Your task to perform on an android device: make emails show in primary in the gmail app Image 0: 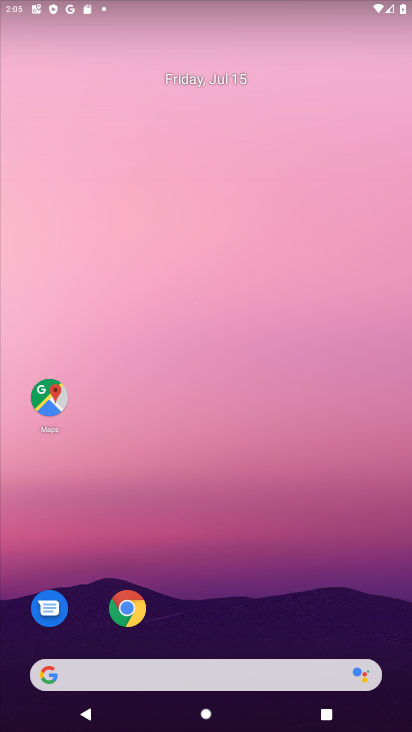
Step 0: drag from (192, 385) to (237, 63)
Your task to perform on an android device: make emails show in primary in the gmail app Image 1: 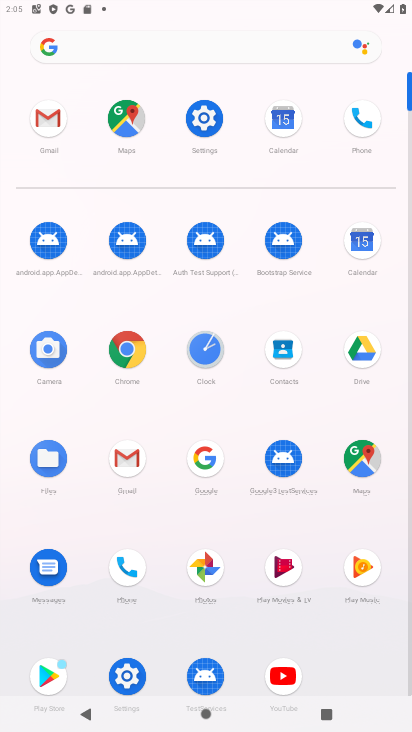
Step 1: click (43, 114)
Your task to perform on an android device: make emails show in primary in the gmail app Image 2: 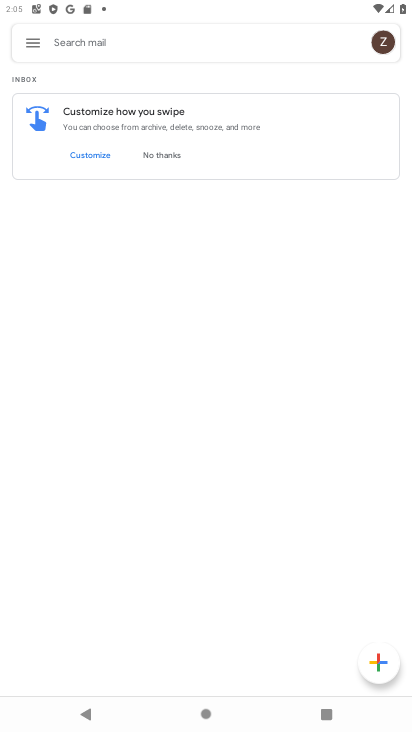
Step 2: click (37, 48)
Your task to perform on an android device: make emails show in primary in the gmail app Image 3: 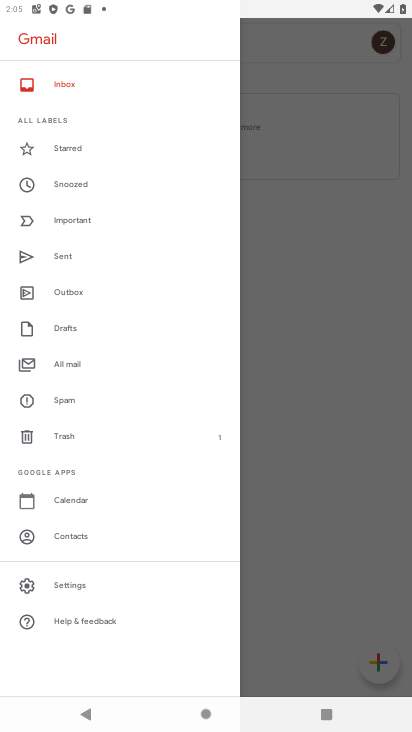
Step 3: click (110, 584)
Your task to perform on an android device: make emails show in primary in the gmail app Image 4: 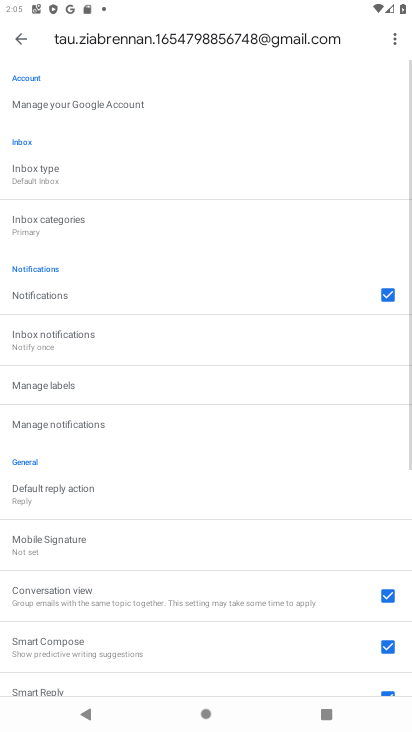
Step 4: click (47, 171)
Your task to perform on an android device: make emails show in primary in the gmail app Image 5: 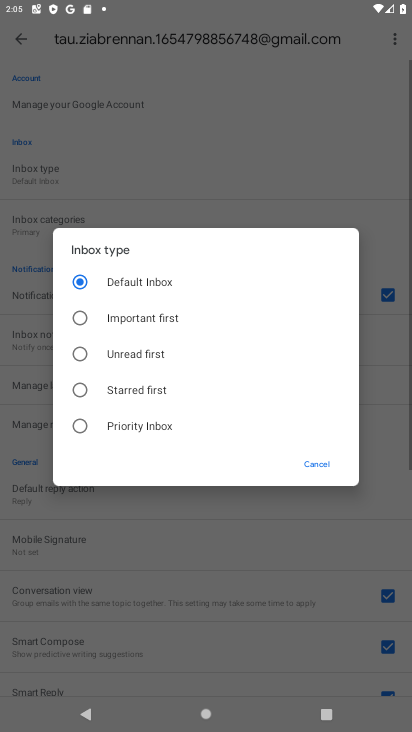
Step 5: click (224, 169)
Your task to perform on an android device: make emails show in primary in the gmail app Image 6: 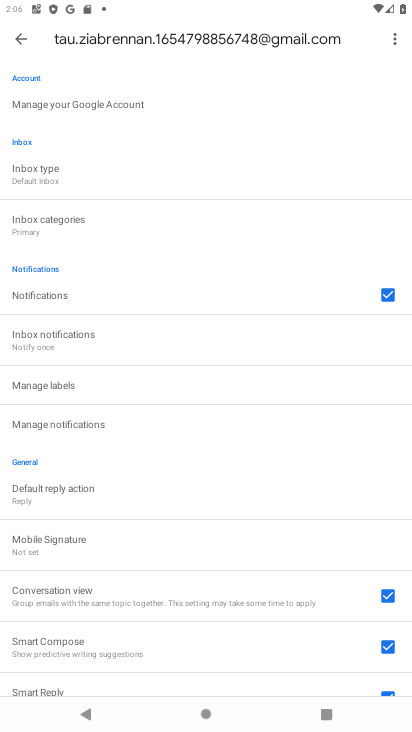
Step 6: task complete